Your task to perform on an android device: Open accessibility settings Image 0: 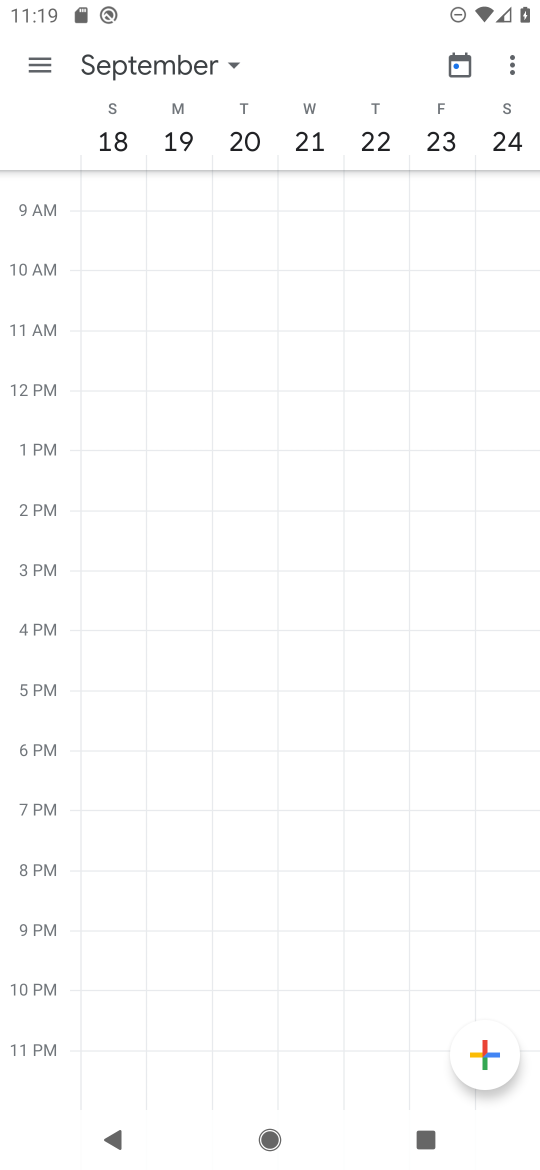
Step 0: press home button
Your task to perform on an android device: Open accessibility settings Image 1: 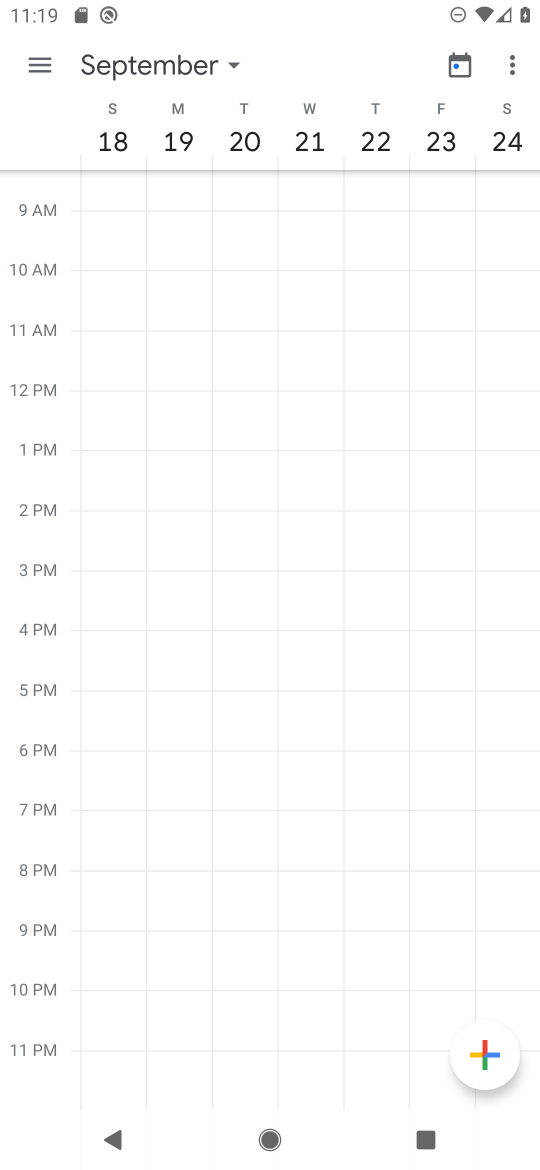
Step 1: press home button
Your task to perform on an android device: Open accessibility settings Image 2: 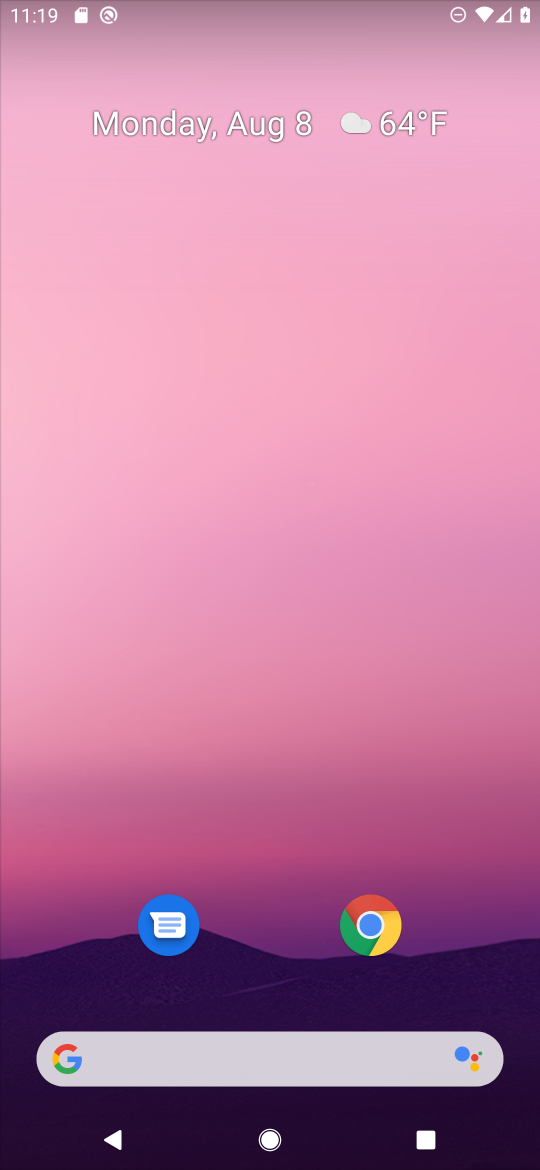
Step 2: drag from (253, 759) to (319, 111)
Your task to perform on an android device: Open accessibility settings Image 3: 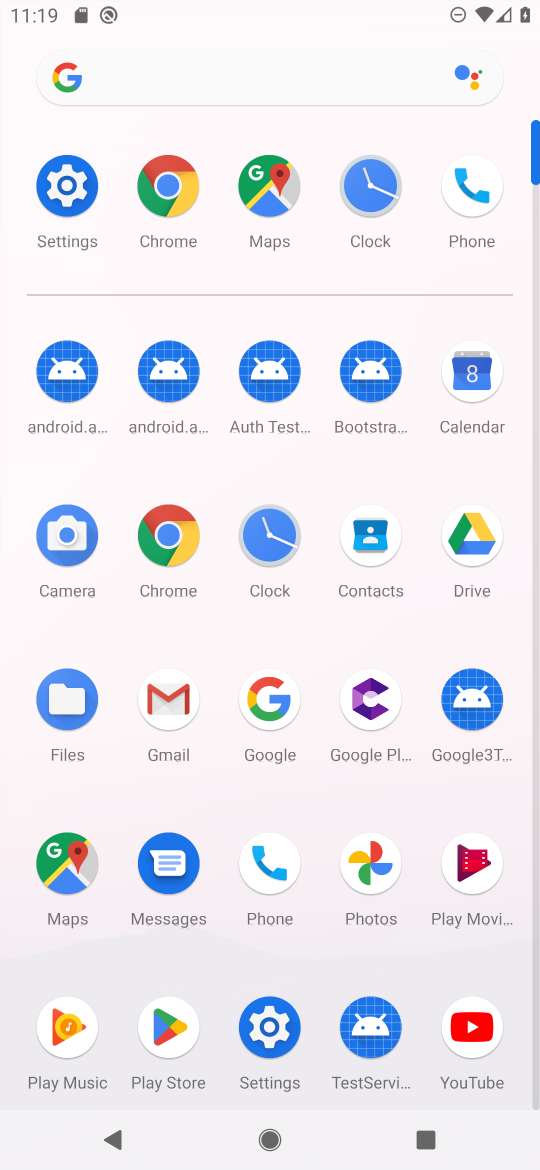
Step 3: click (282, 1012)
Your task to perform on an android device: Open accessibility settings Image 4: 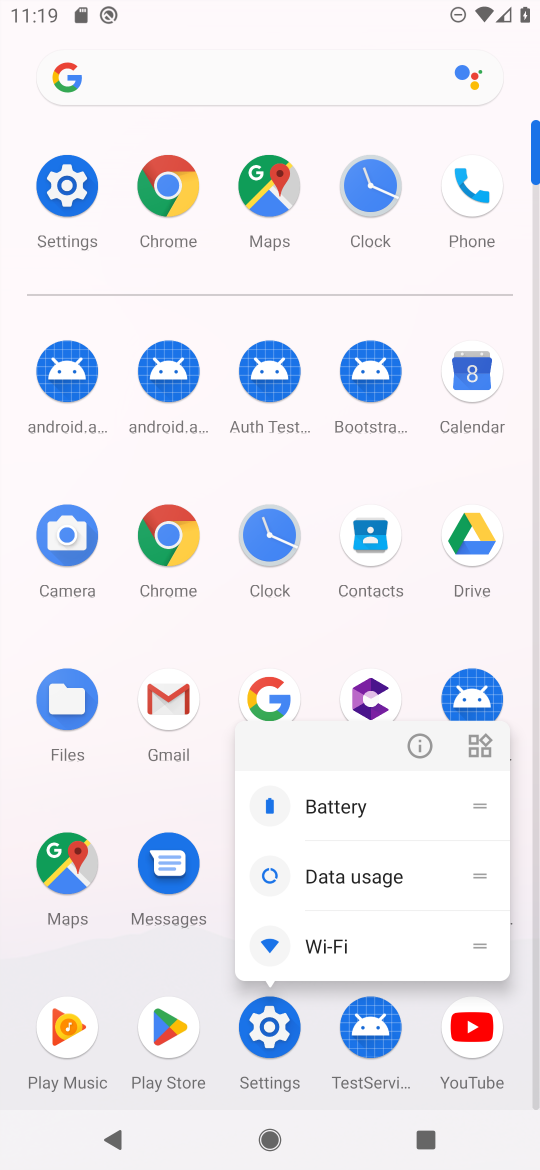
Step 4: click (272, 1012)
Your task to perform on an android device: Open accessibility settings Image 5: 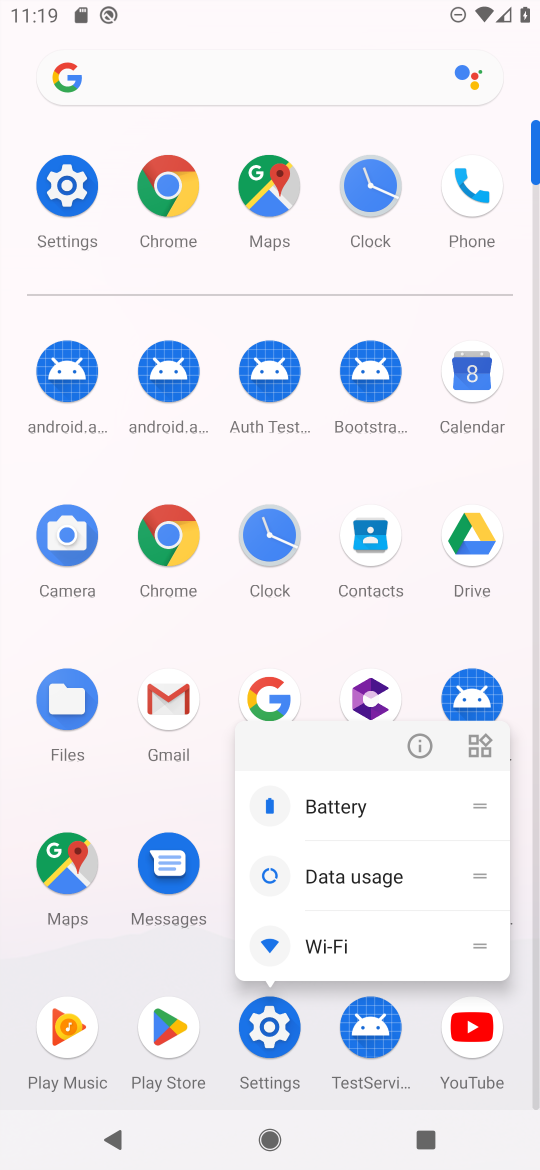
Step 5: click (260, 1020)
Your task to perform on an android device: Open accessibility settings Image 6: 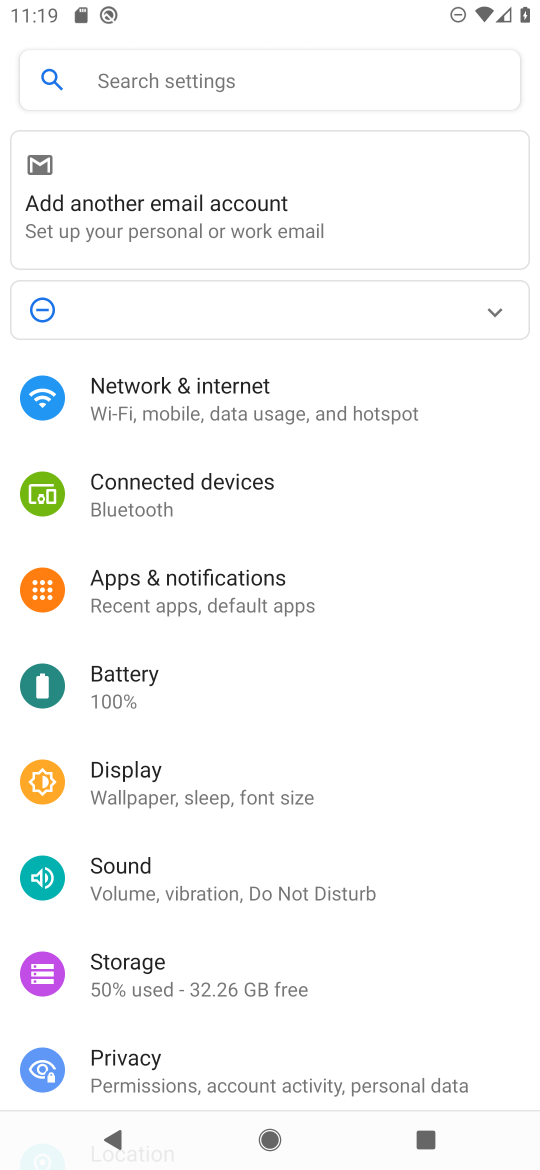
Step 6: drag from (272, 926) to (322, 258)
Your task to perform on an android device: Open accessibility settings Image 7: 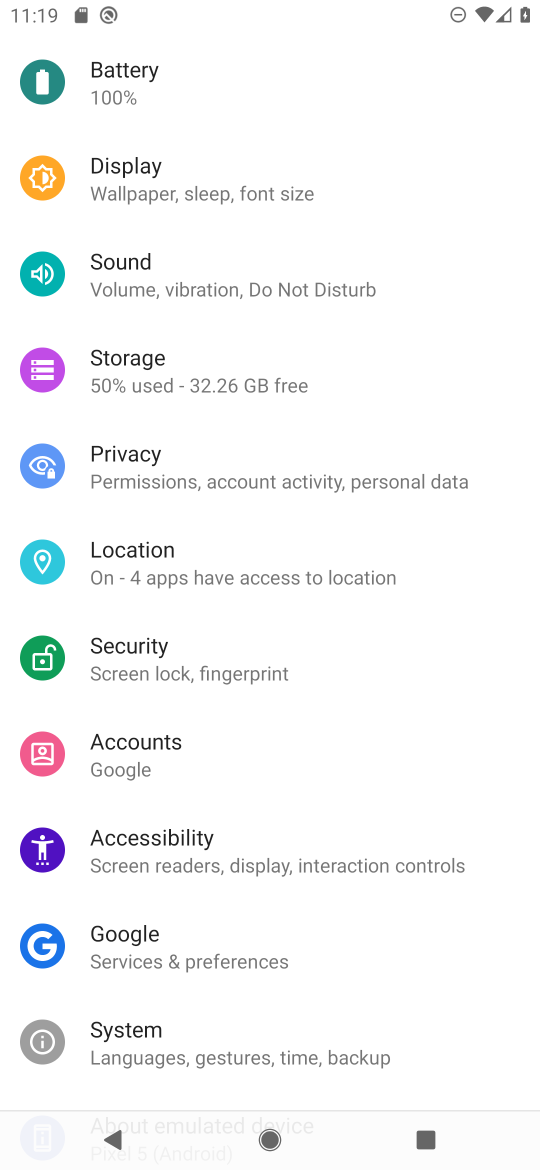
Step 7: click (149, 862)
Your task to perform on an android device: Open accessibility settings Image 8: 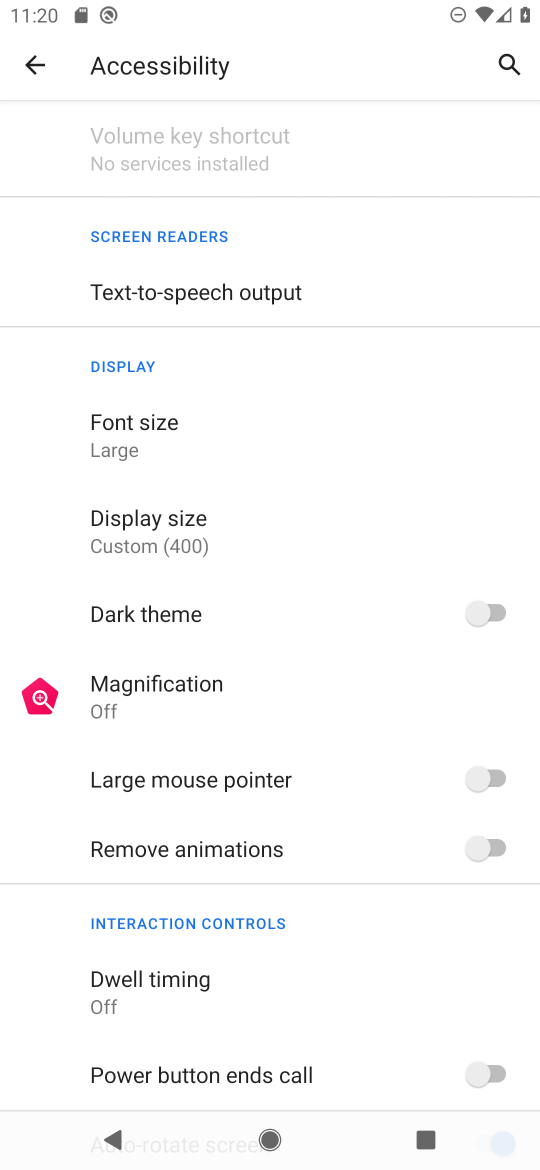
Step 8: task complete